Your task to perform on an android device: Open CNN.com Image 0: 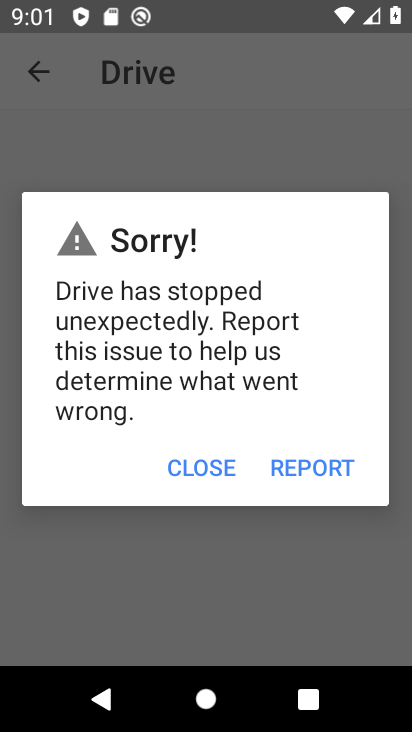
Step 0: press home button
Your task to perform on an android device: Open CNN.com Image 1: 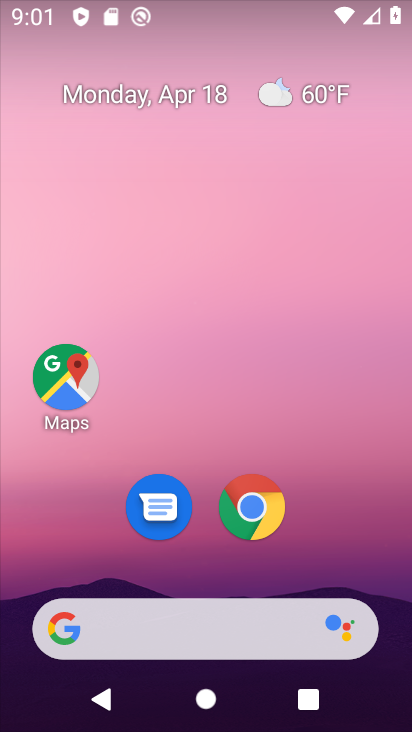
Step 1: click (244, 518)
Your task to perform on an android device: Open CNN.com Image 2: 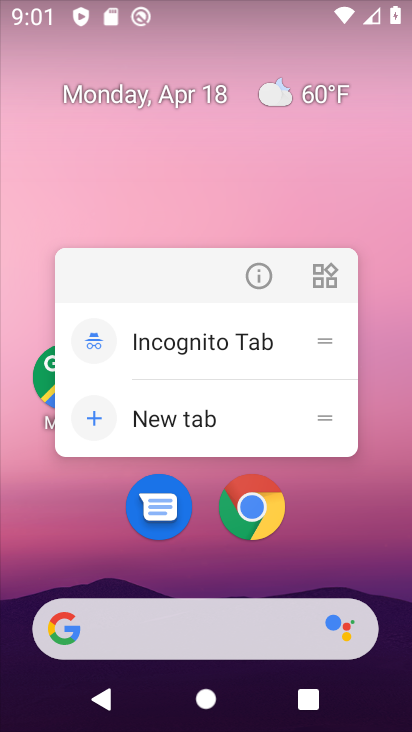
Step 2: click (265, 526)
Your task to perform on an android device: Open CNN.com Image 3: 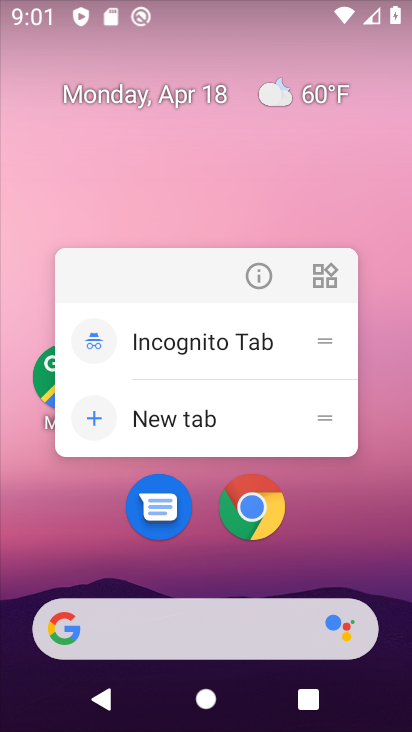
Step 3: click (263, 519)
Your task to perform on an android device: Open CNN.com Image 4: 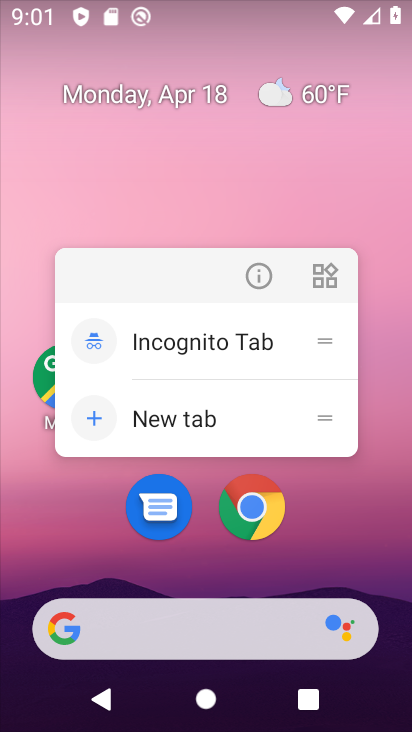
Step 4: click (264, 516)
Your task to perform on an android device: Open CNN.com Image 5: 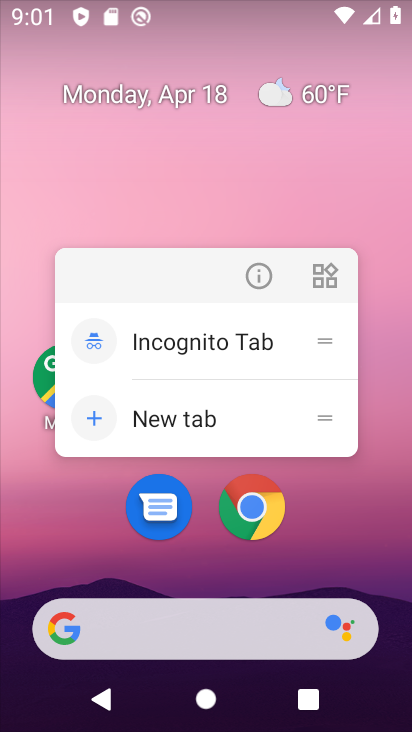
Step 5: click (264, 518)
Your task to perform on an android device: Open CNN.com Image 6: 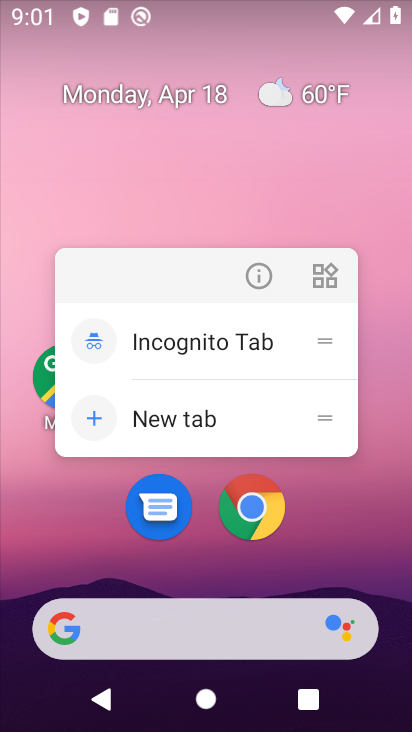
Step 6: click (247, 526)
Your task to perform on an android device: Open CNN.com Image 7: 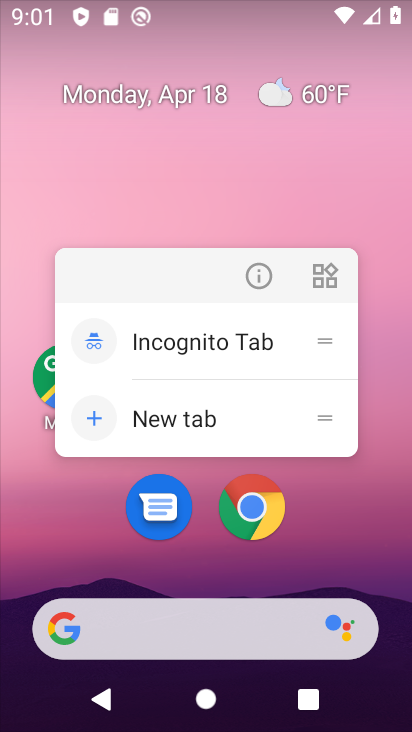
Step 7: click (264, 535)
Your task to perform on an android device: Open CNN.com Image 8: 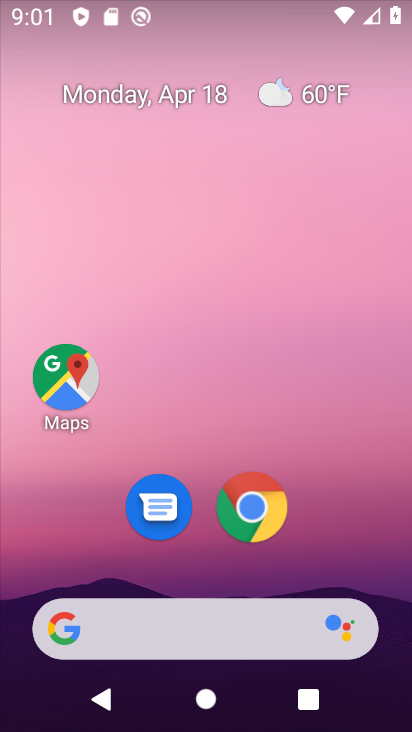
Step 8: click (264, 535)
Your task to perform on an android device: Open CNN.com Image 9: 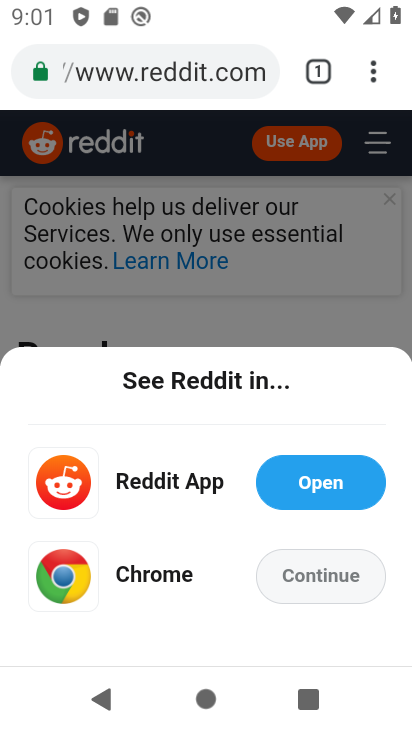
Step 9: click (195, 95)
Your task to perform on an android device: Open CNN.com Image 10: 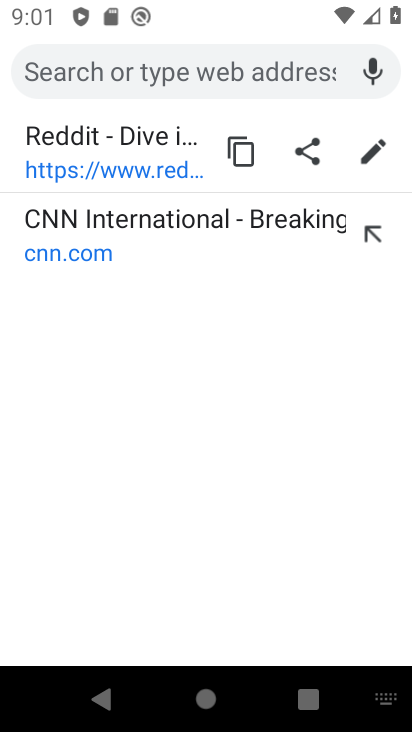
Step 10: type "CNN.com"
Your task to perform on an android device: Open CNN.com Image 11: 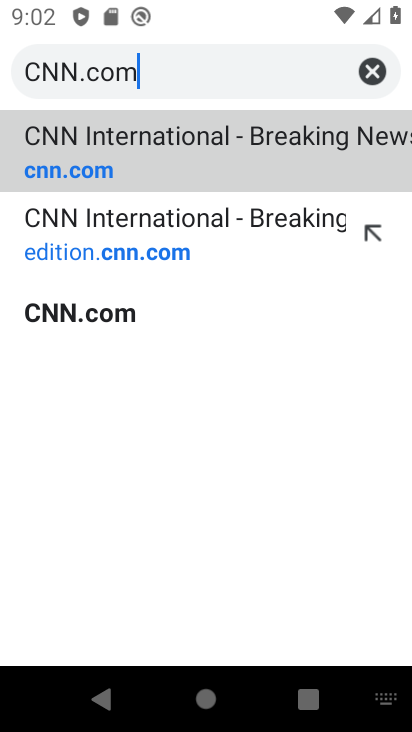
Step 11: click (191, 169)
Your task to perform on an android device: Open CNN.com Image 12: 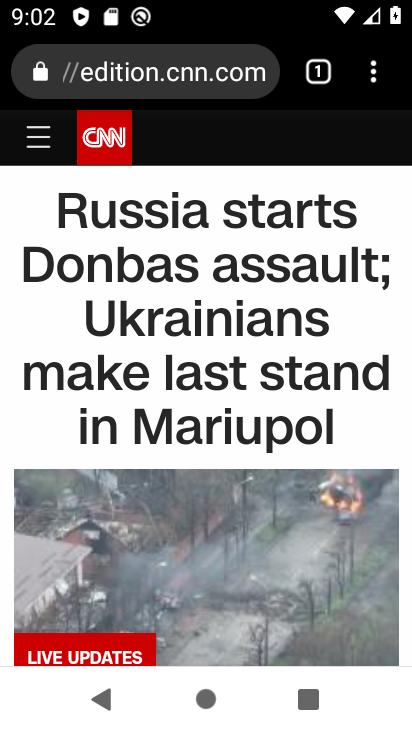
Step 12: task complete